Your task to perform on an android device: Go to ESPN.com Image 0: 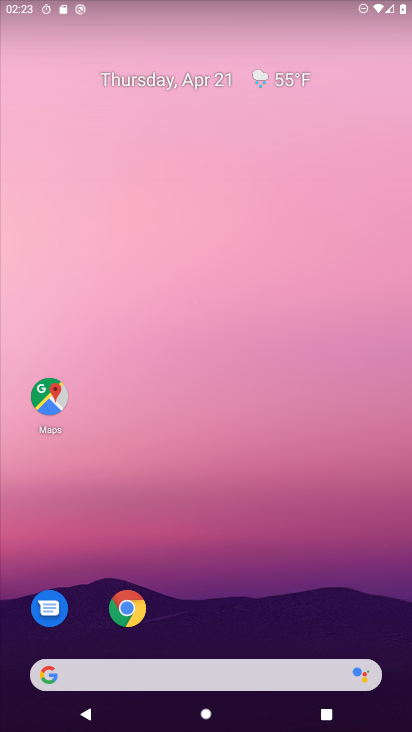
Step 0: press home button
Your task to perform on an android device: Go to ESPN.com Image 1: 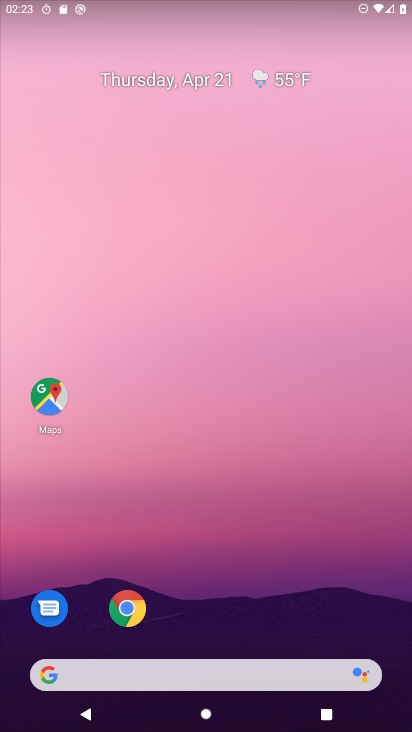
Step 1: click (130, 618)
Your task to perform on an android device: Go to ESPN.com Image 2: 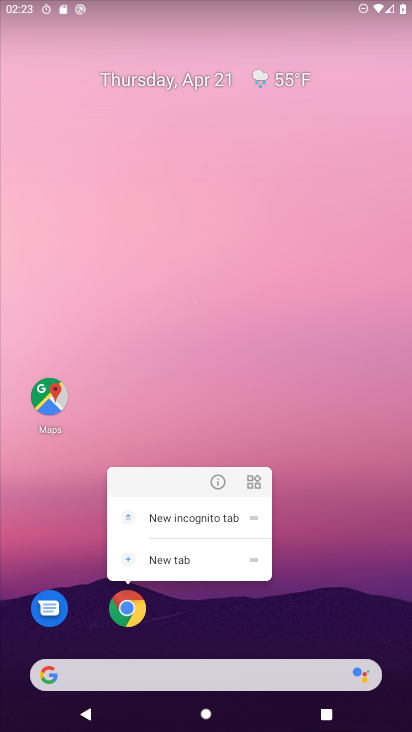
Step 2: click (130, 618)
Your task to perform on an android device: Go to ESPN.com Image 3: 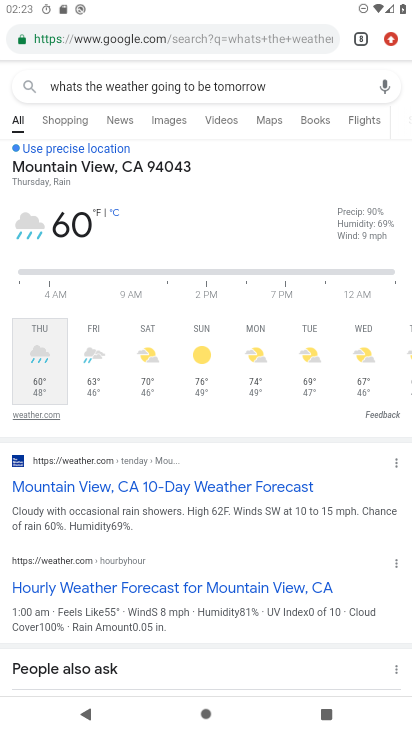
Step 3: click (359, 40)
Your task to perform on an android device: Go to ESPN.com Image 4: 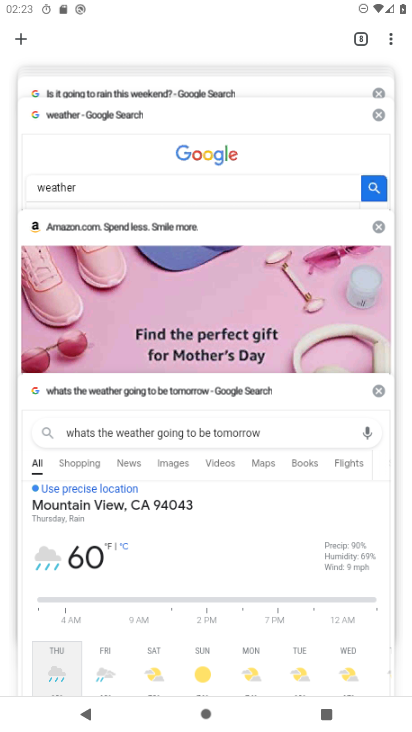
Step 4: click (20, 38)
Your task to perform on an android device: Go to ESPN.com Image 5: 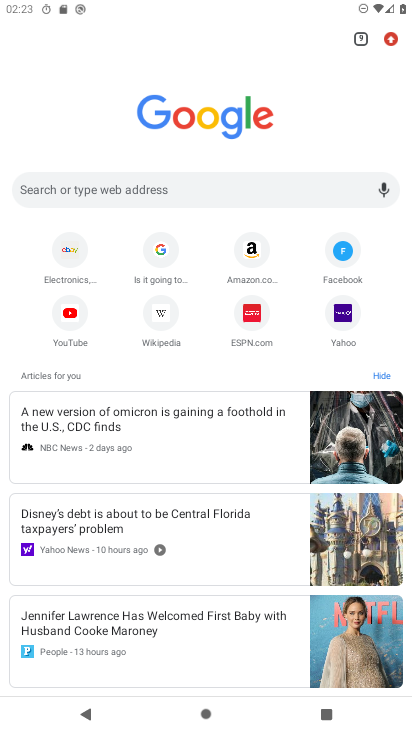
Step 5: click (253, 312)
Your task to perform on an android device: Go to ESPN.com Image 6: 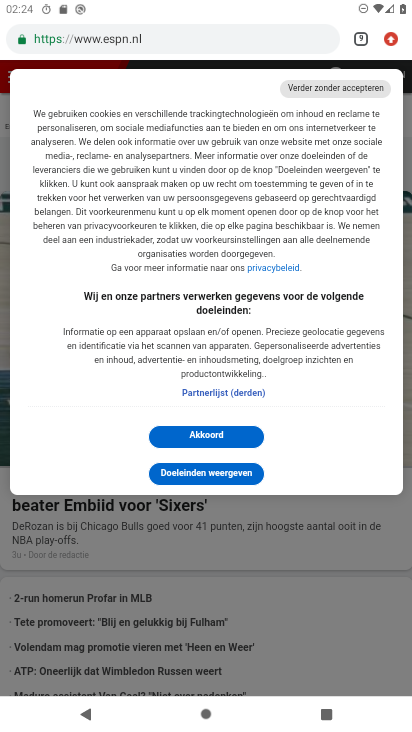
Step 6: task complete